Your task to perform on an android device: empty trash in the gmail app Image 0: 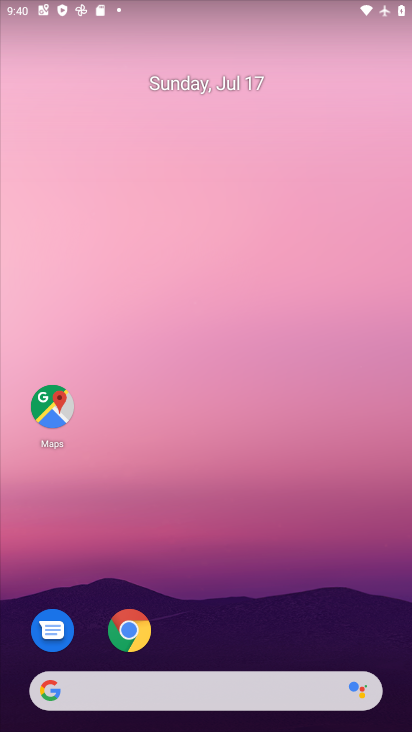
Step 0: drag from (272, 641) to (267, 79)
Your task to perform on an android device: empty trash in the gmail app Image 1: 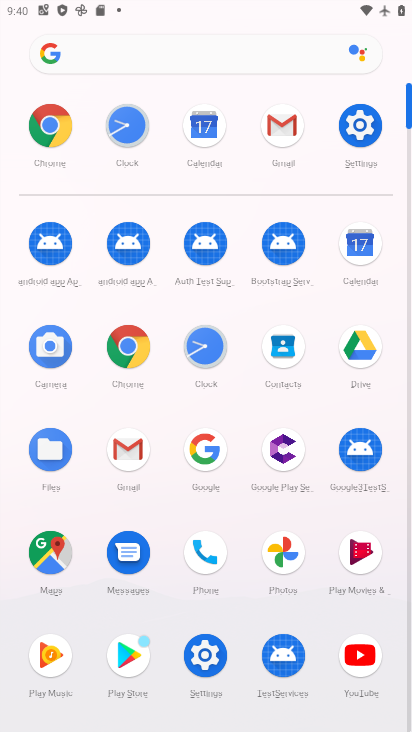
Step 1: click (268, 112)
Your task to perform on an android device: empty trash in the gmail app Image 2: 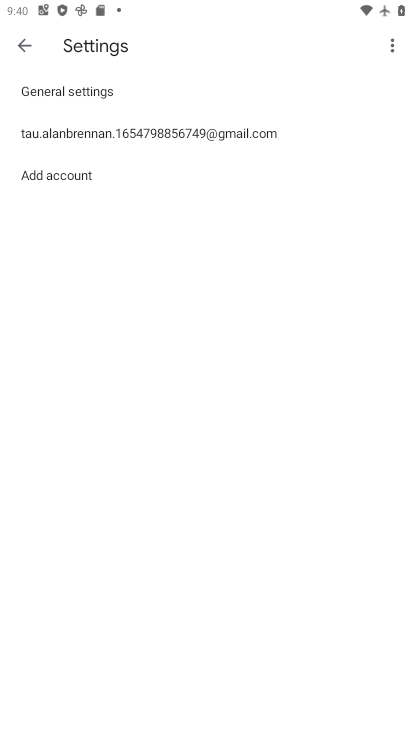
Step 2: click (19, 49)
Your task to perform on an android device: empty trash in the gmail app Image 3: 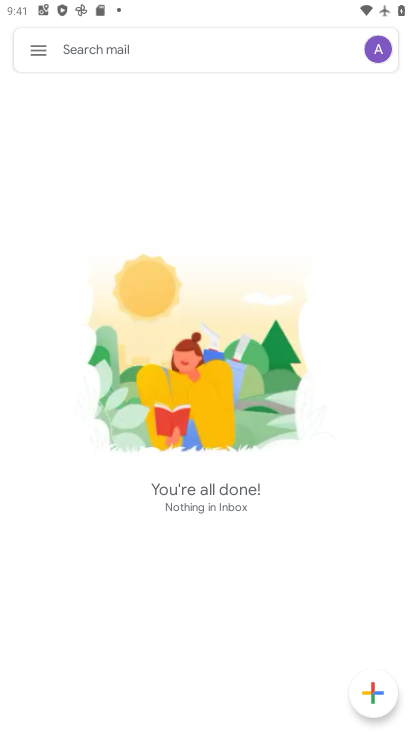
Step 3: task complete